Your task to perform on an android device: open app "HBO Max: Stream TV & Movies" (install if not already installed), go to login, and select forgot password Image 0: 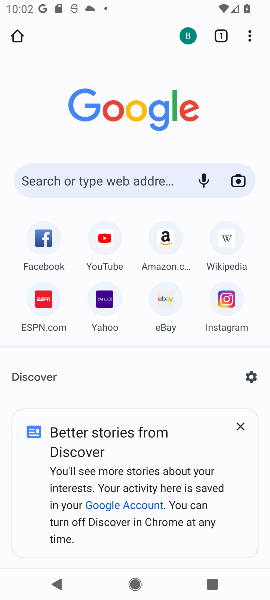
Step 0: press home button
Your task to perform on an android device: open app "HBO Max: Stream TV & Movies" (install if not already installed), go to login, and select forgot password Image 1: 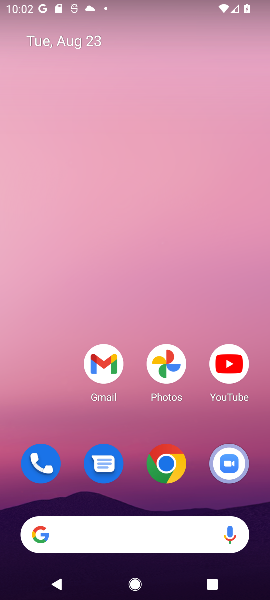
Step 1: drag from (136, 429) to (139, 2)
Your task to perform on an android device: open app "HBO Max: Stream TV & Movies" (install if not already installed), go to login, and select forgot password Image 2: 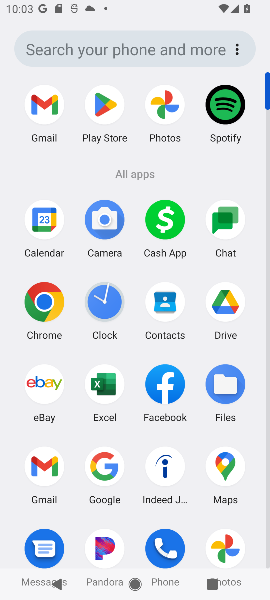
Step 2: click (96, 100)
Your task to perform on an android device: open app "HBO Max: Stream TV & Movies" (install if not already installed), go to login, and select forgot password Image 3: 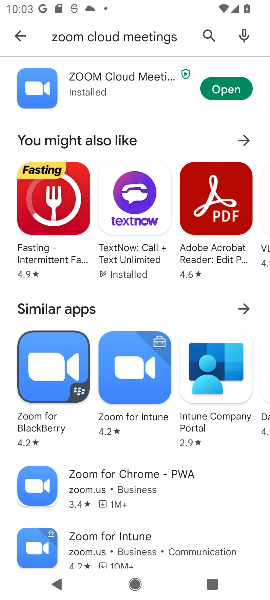
Step 3: click (203, 31)
Your task to perform on an android device: open app "HBO Max: Stream TV & Movies" (install if not already installed), go to login, and select forgot password Image 4: 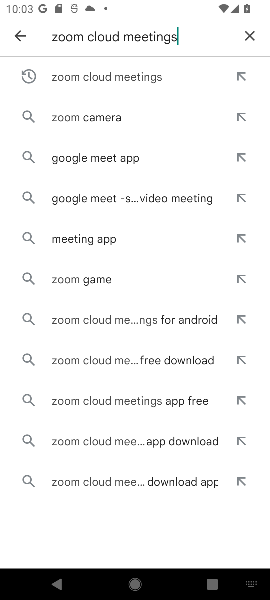
Step 4: click (247, 36)
Your task to perform on an android device: open app "HBO Max: Stream TV & Movies" (install if not already installed), go to login, and select forgot password Image 5: 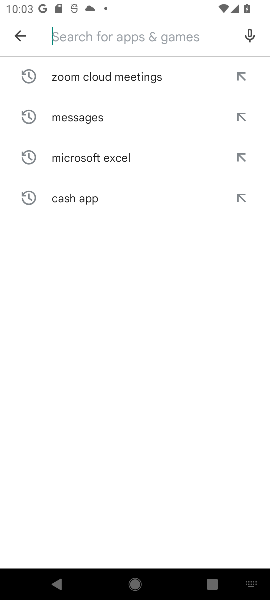
Step 5: type "HBO Max: Stream TV & Movies"
Your task to perform on an android device: open app "HBO Max: Stream TV & Movies" (install if not already installed), go to login, and select forgot password Image 6: 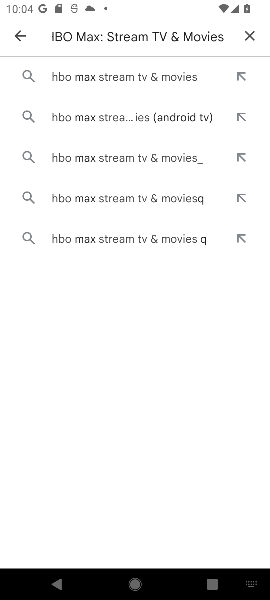
Step 6: click (131, 64)
Your task to perform on an android device: open app "HBO Max: Stream TV & Movies" (install if not already installed), go to login, and select forgot password Image 7: 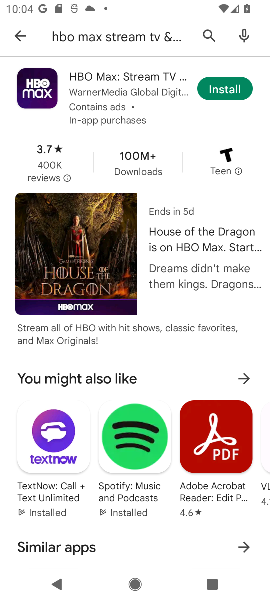
Step 7: click (231, 83)
Your task to perform on an android device: open app "HBO Max: Stream TV & Movies" (install if not already installed), go to login, and select forgot password Image 8: 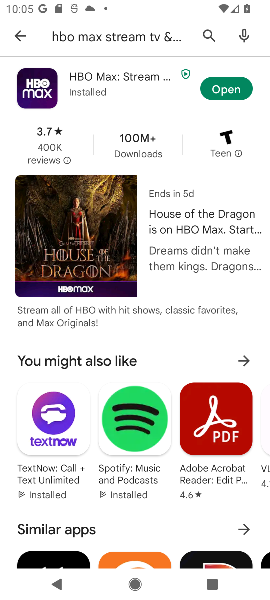
Step 8: click (231, 84)
Your task to perform on an android device: open app "HBO Max: Stream TV & Movies" (install if not already installed), go to login, and select forgot password Image 9: 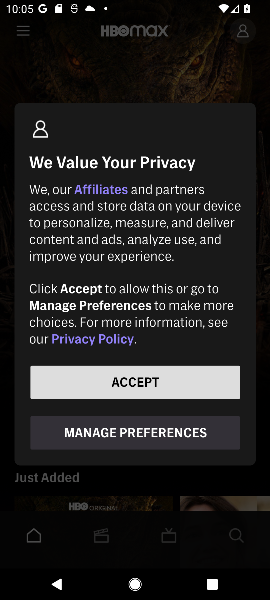
Step 9: click (138, 383)
Your task to perform on an android device: open app "HBO Max: Stream TV & Movies" (install if not already installed), go to login, and select forgot password Image 10: 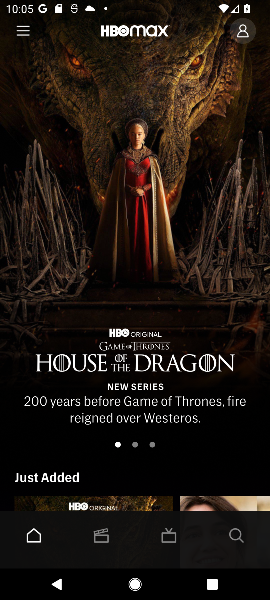
Step 10: task complete